Your task to perform on an android device: change text size in settings app Image 0: 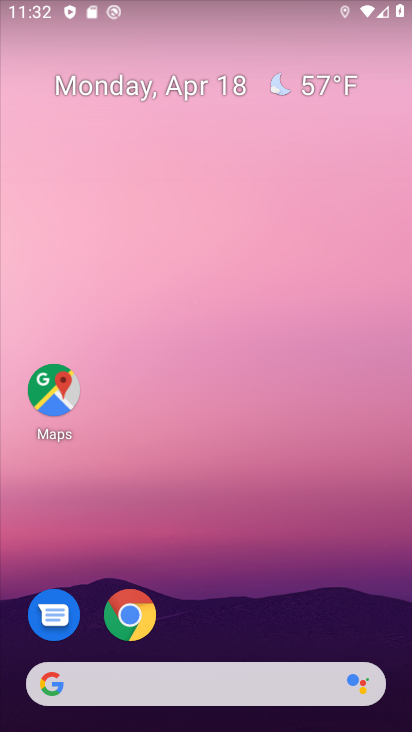
Step 0: drag from (218, 620) to (218, 171)
Your task to perform on an android device: change text size in settings app Image 1: 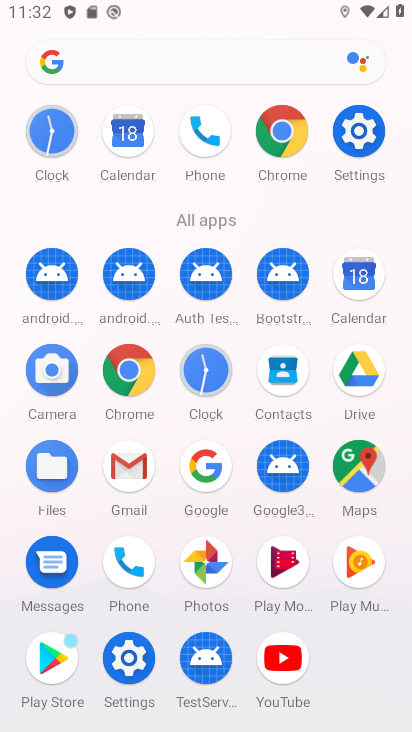
Step 1: click (359, 140)
Your task to perform on an android device: change text size in settings app Image 2: 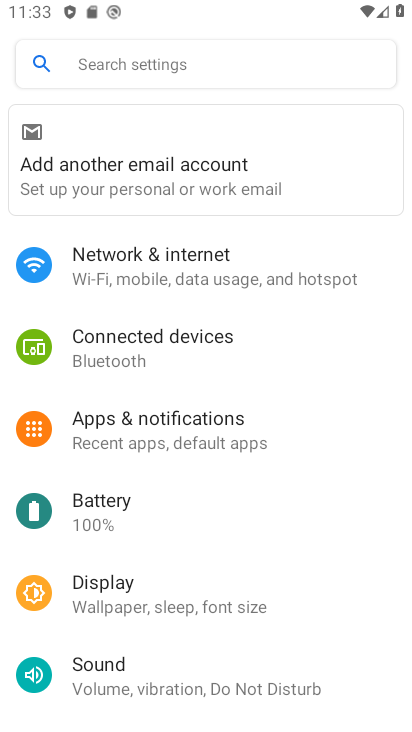
Step 2: drag from (212, 564) to (227, 289)
Your task to perform on an android device: change text size in settings app Image 3: 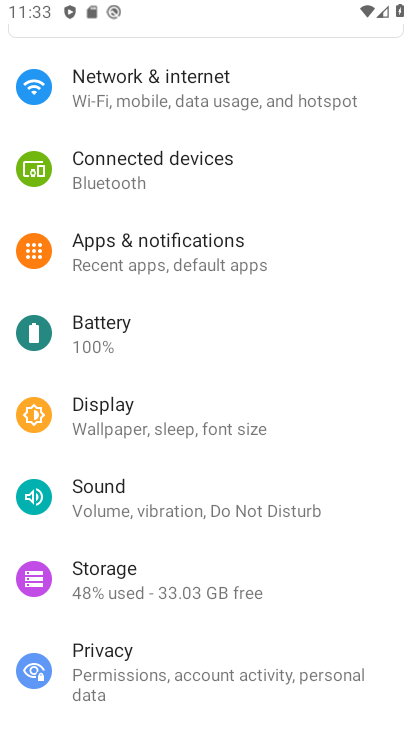
Step 3: click (200, 420)
Your task to perform on an android device: change text size in settings app Image 4: 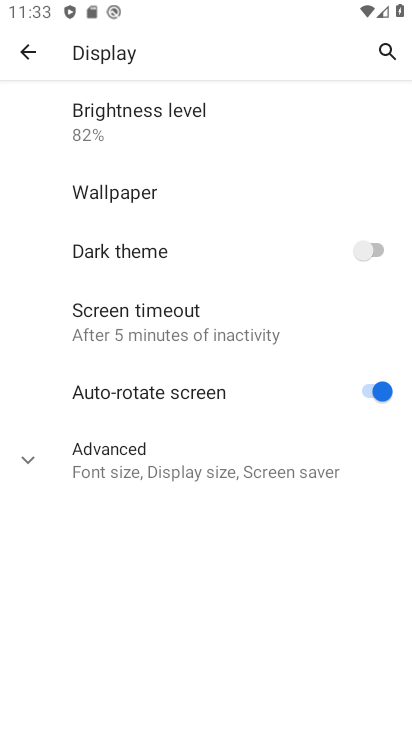
Step 4: click (171, 470)
Your task to perform on an android device: change text size in settings app Image 5: 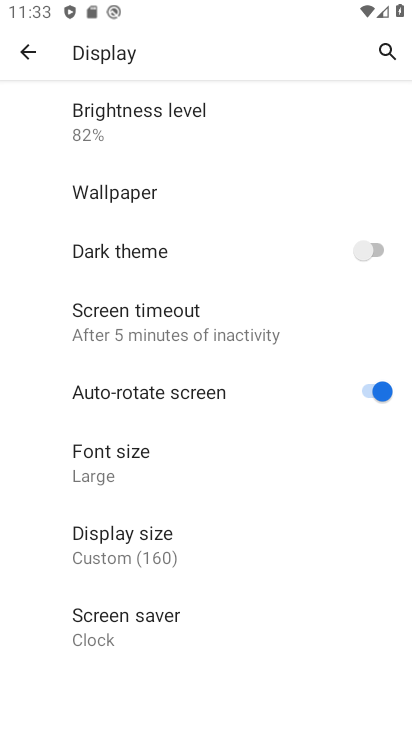
Step 5: click (134, 453)
Your task to perform on an android device: change text size in settings app Image 6: 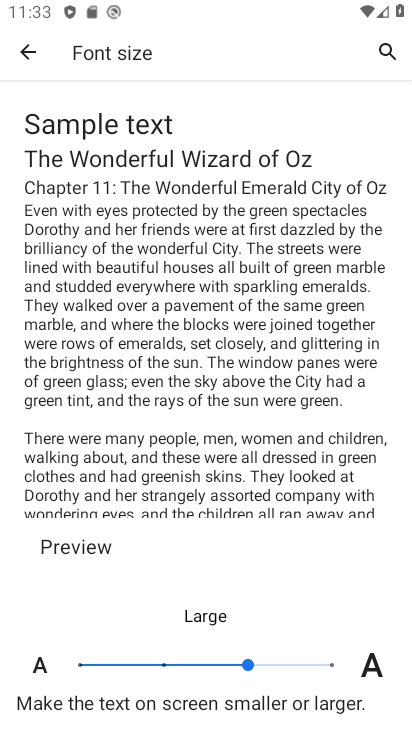
Step 6: click (160, 658)
Your task to perform on an android device: change text size in settings app Image 7: 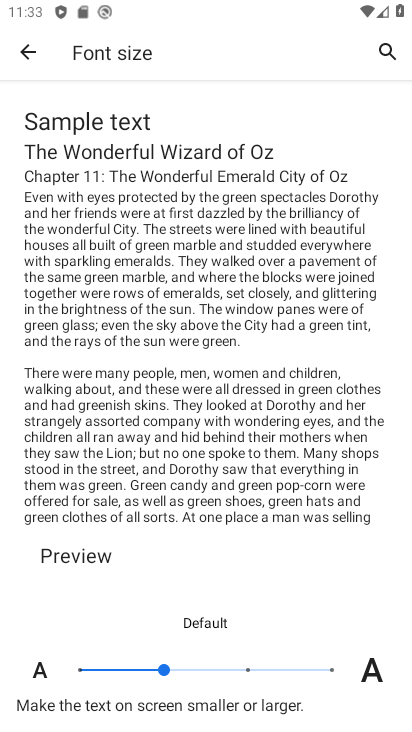
Step 7: task complete